Your task to perform on an android device: toggle notification dots Image 0: 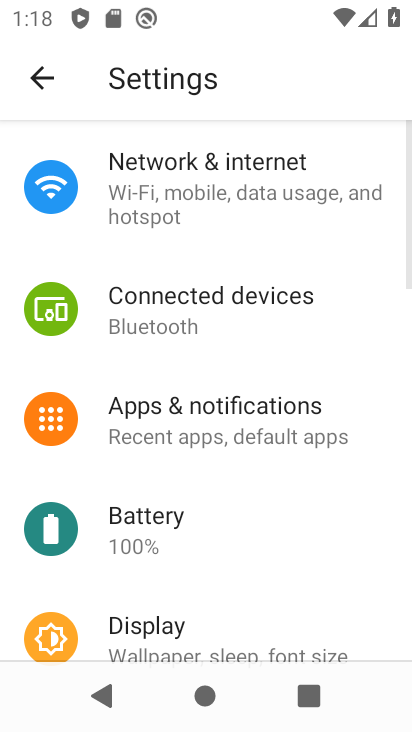
Step 0: click (189, 420)
Your task to perform on an android device: toggle notification dots Image 1: 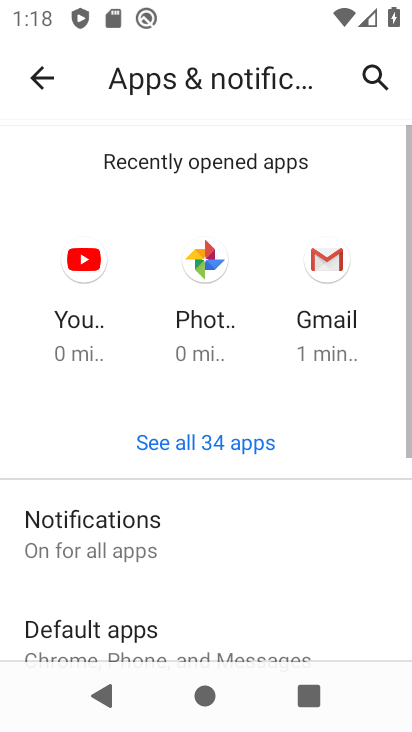
Step 1: click (152, 526)
Your task to perform on an android device: toggle notification dots Image 2: 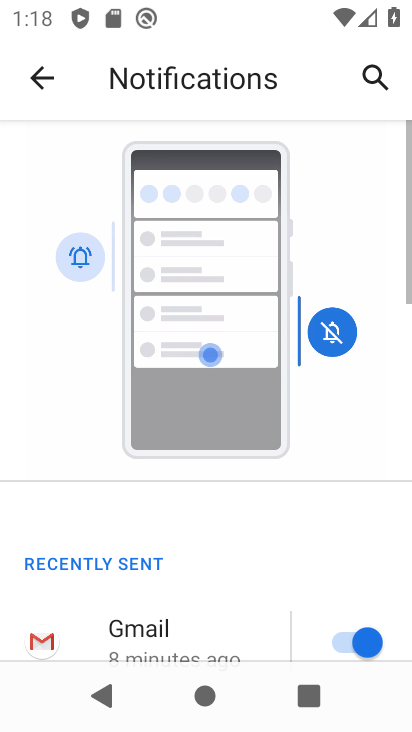
Step 2: drag from (192, 615) to (250, 133)
Your task to perform on an android device: toggle notification dots Image 3: 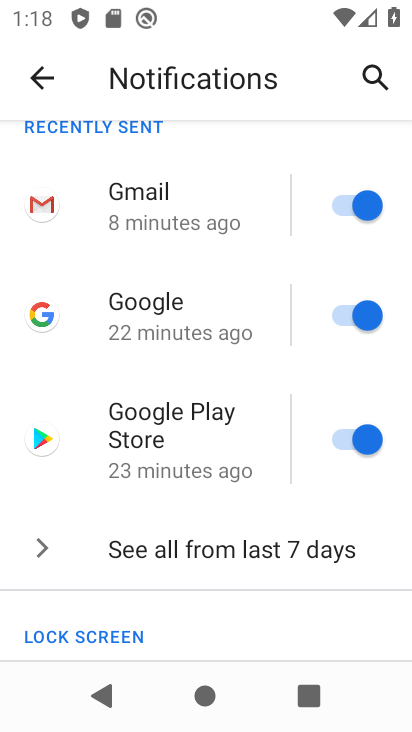
Step 3: drag from (188, 599) to (200, 132)
Your task to perform on an android device: toggle notification dots Image 4: 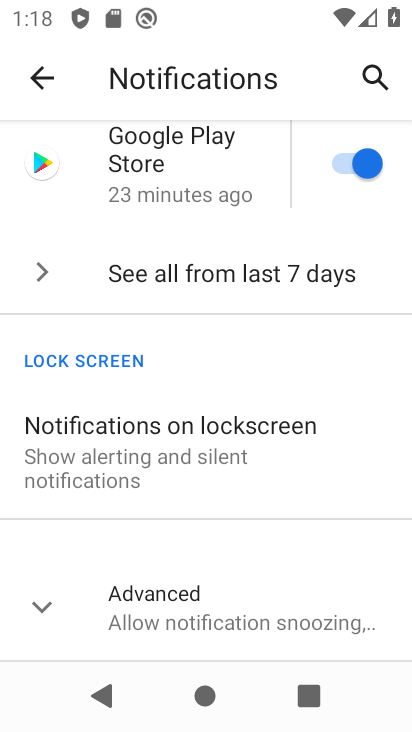
Step 4: click (168, 586)
Your task to perform on an android device: toggle notification dots Image 5: 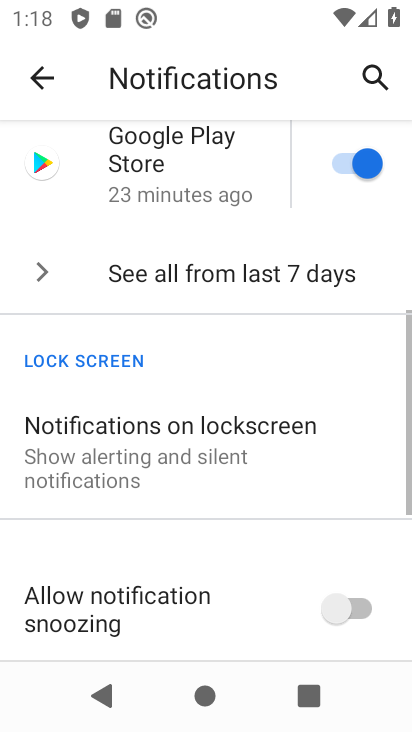
Step 5: drag from (168, 586) to (180, 173)
Your task to perform on an android device: toggle notification dots Image 6: 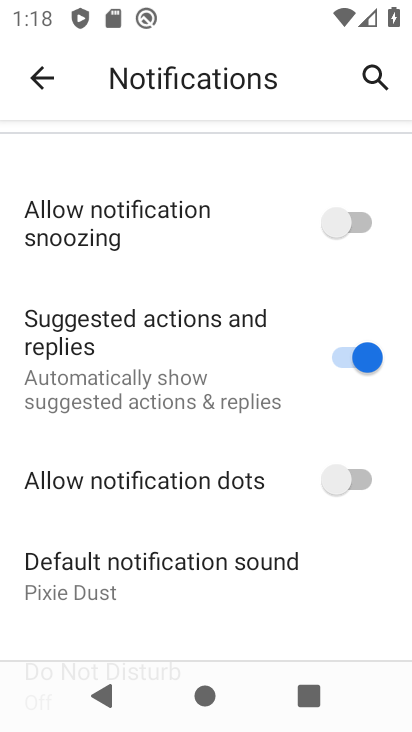
Step 6: click (344, 475)
Your task to perform on an android device: toggle notification dots Image 7: 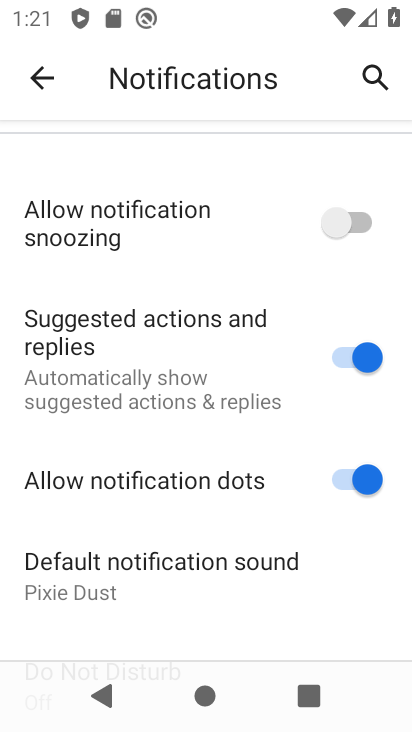
Step 7: task complete